Your task to perform on an android device: Open privacy settings Image 0: 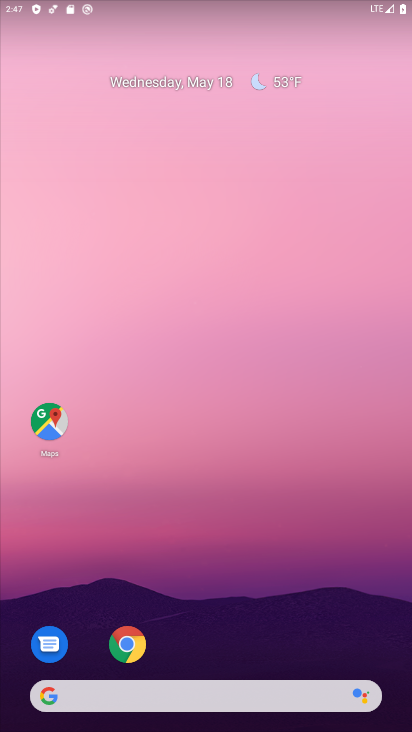
Step 0: drag from (198, 651) to (213, 311)
Your task to perform on an android device: Open privacy settings Image 1: 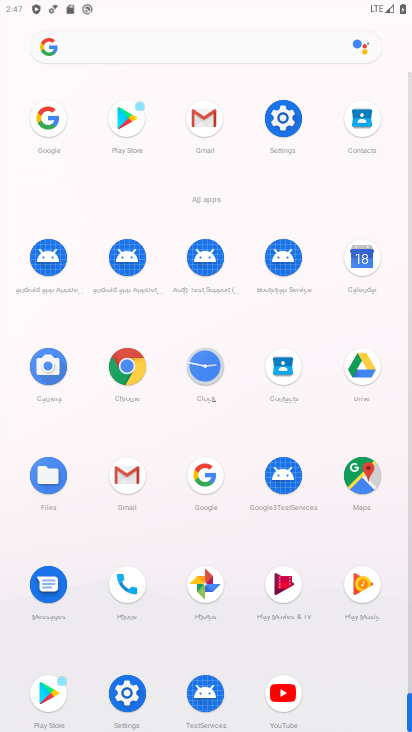
Step 1: click (275, 121)
Your task to perform on an android device: Open privacy settings Image 2: 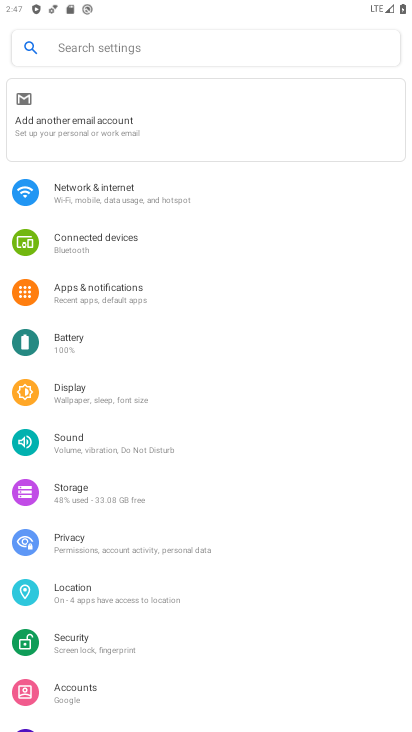
Step 2: click (45, 545)
Your task to perform on an android device: Open privacy settings Image 3: 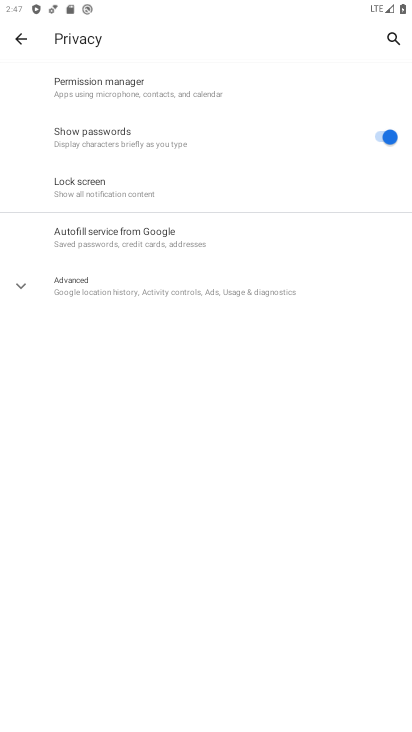
Step 3: click (69, 279)
Your task to perform on an android device: Open privacy settings Image 4: 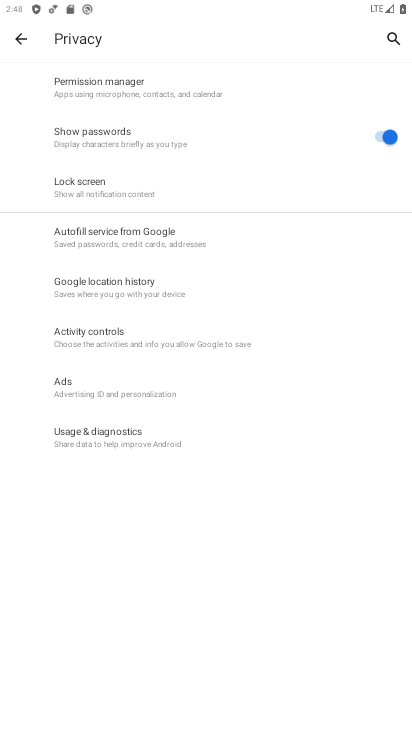
Step 4: task complete